Your task to perform on an android device: Is it going to rain this weekend? Image 0: 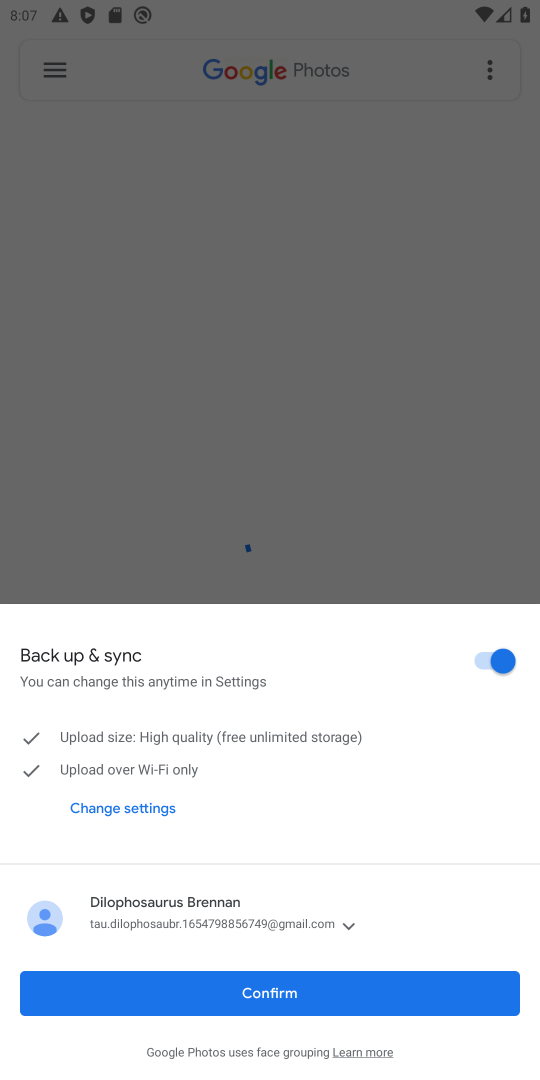
Step 0: press home button
Your task to perform on an android device: Is it going to rain this weekend? Image 1: 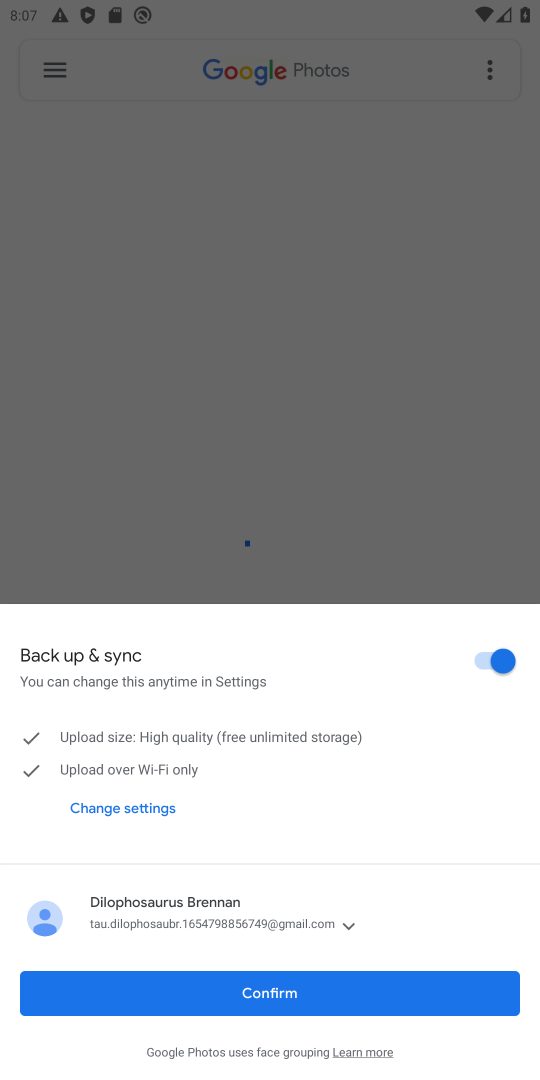
Step 1: click (387, 136)
Your task to perform on an android device: Is it going to rain this weekend? Image 2: 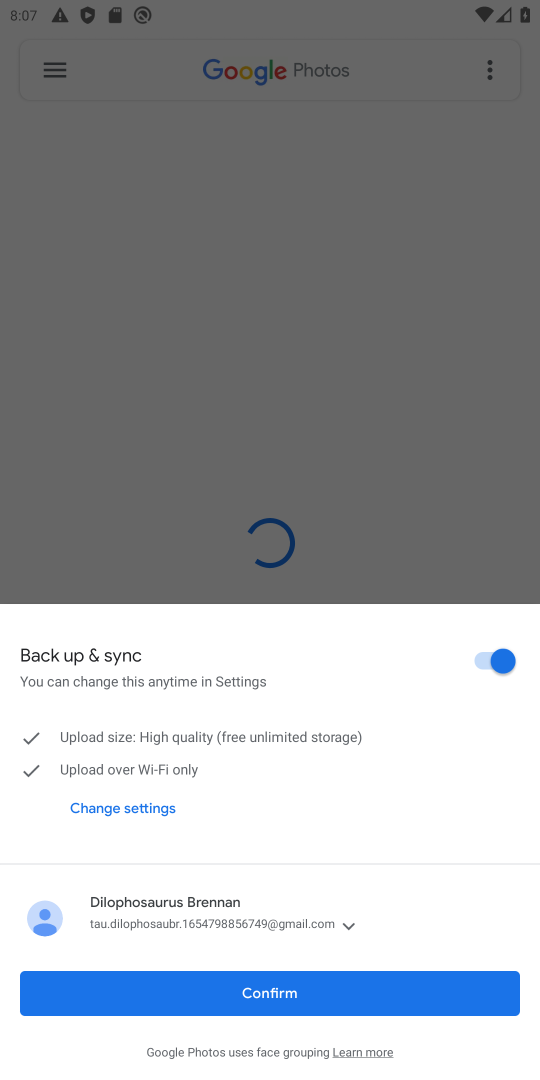
Step 2: drag from (238, 912) to (347, 141)
Your task to perform on an android device: Is it going to rain this weekend? Image 3: 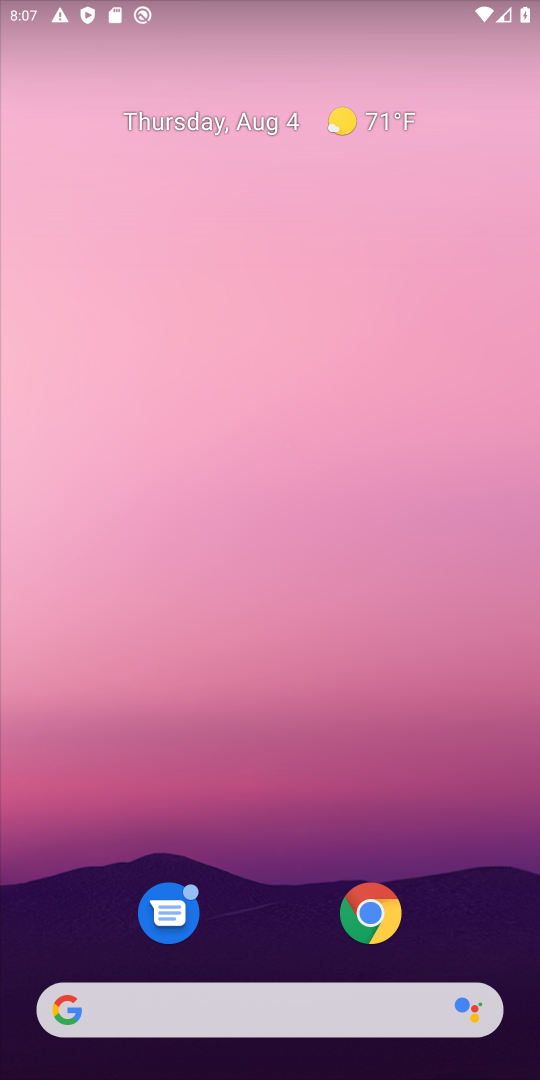
Step 3: drag from (341, 926) to (467, 141)
Your task to perform on an android device: Is it going to rain this weekend? Image 4: 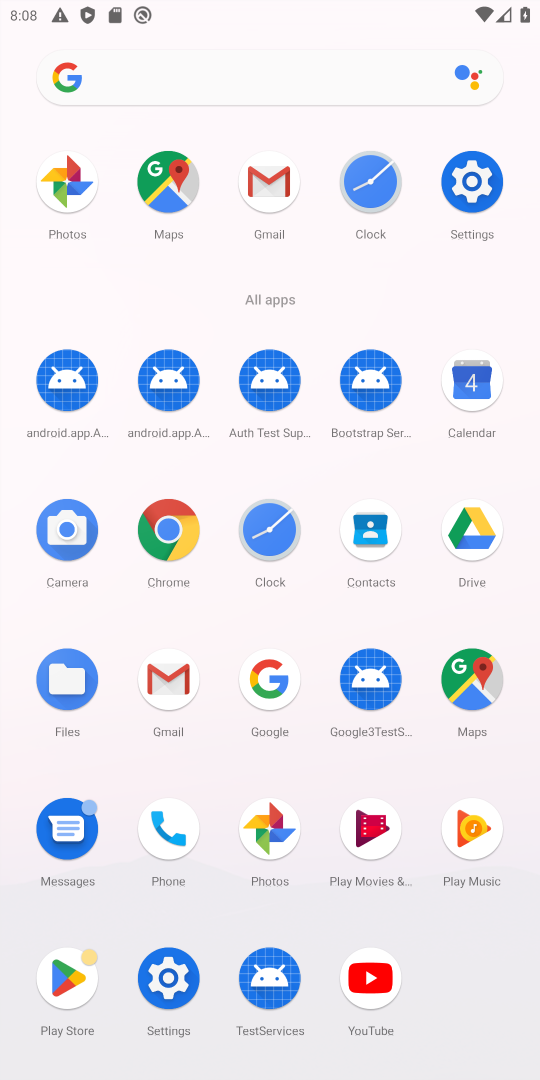
Step 4: click (168, 62)
Your task to perform on an android device: Is it going to rain this weekend? Image 5: 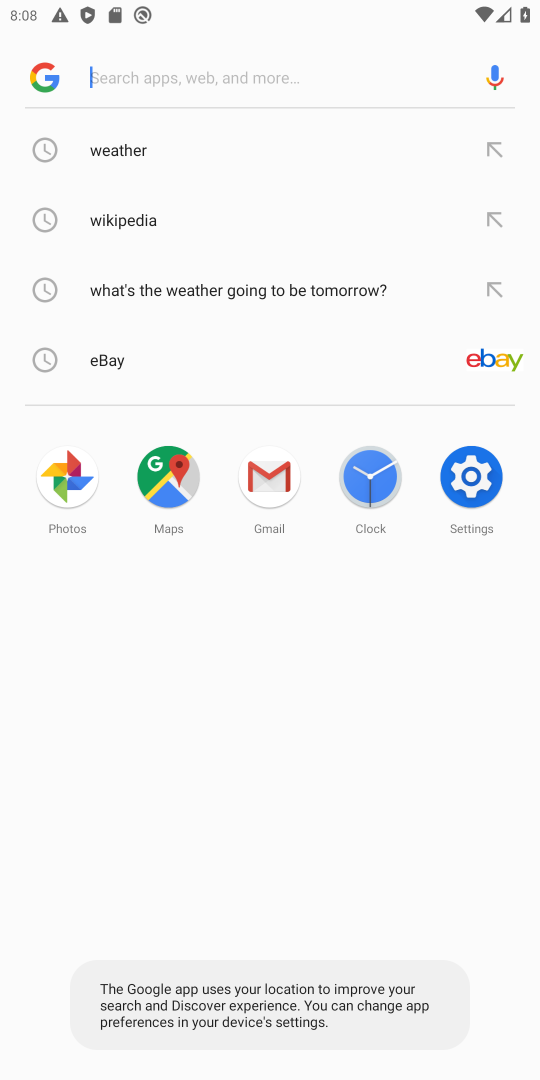
Step 5: type "Is it going to rain this weekend?"
Your task to perform on an android device: Is it going to rain this weekend? Image 6: 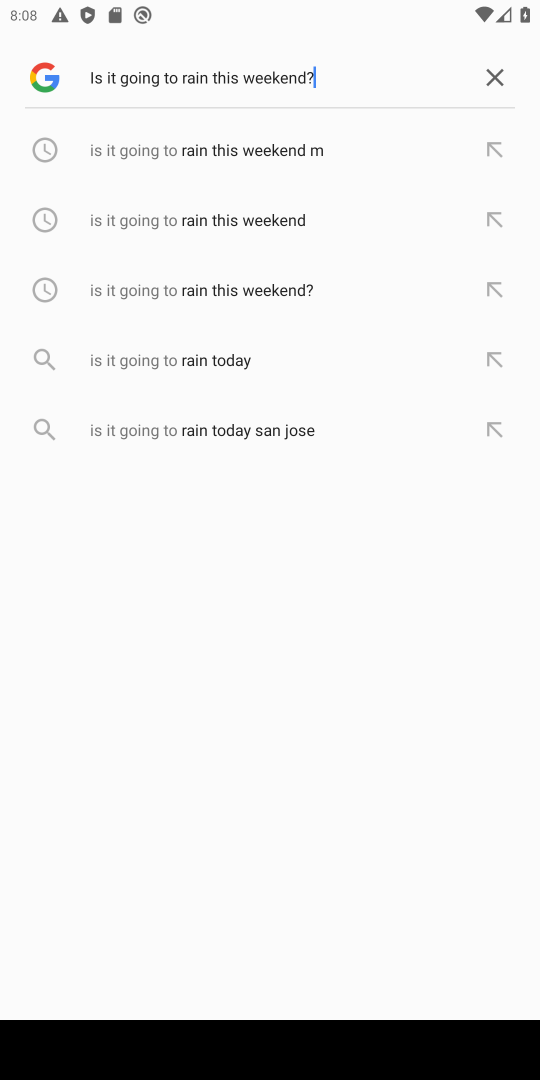
Step 6: type ""
Your task to perform on an android device: Is it going to rain this weekend? Image 7: 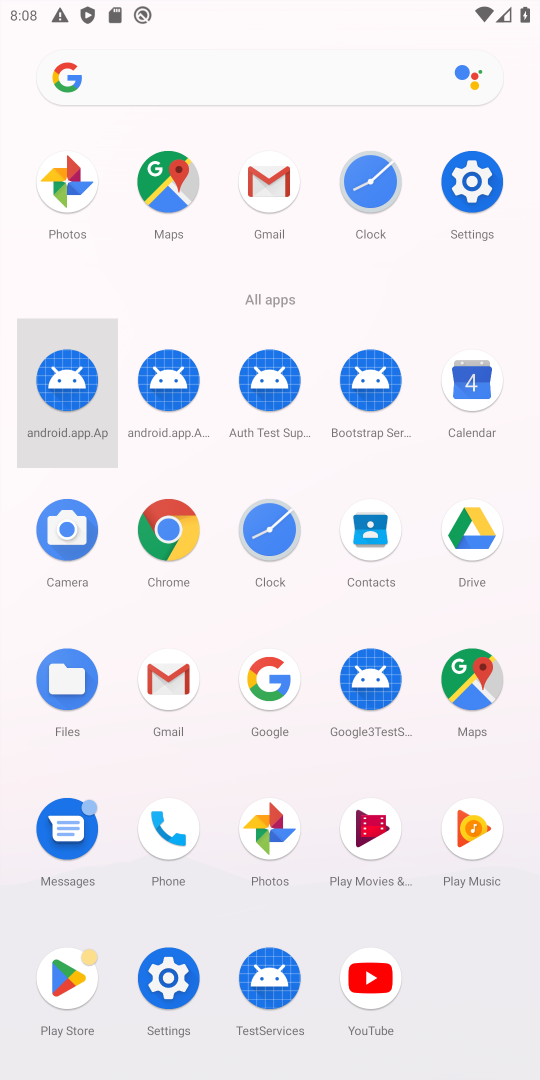
Step 7: drag from (278, 651) to (292, 280)
Your task to perform on an android device: Is it going to rain this weekend? Image 8: 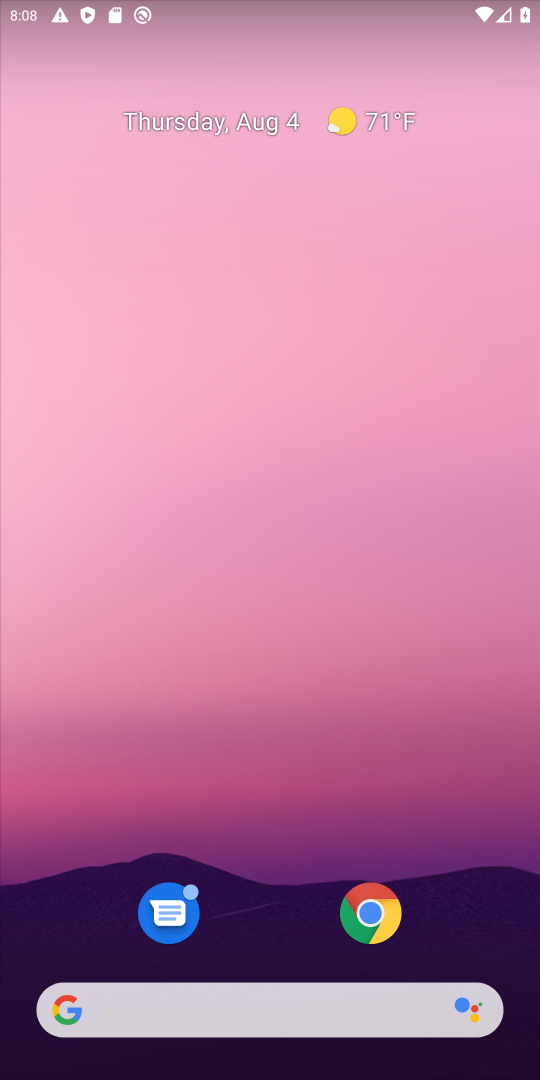
Step 8: click (143, 60)
Your task to perform on an android device: Is it going to rain this weekend? Image 9: 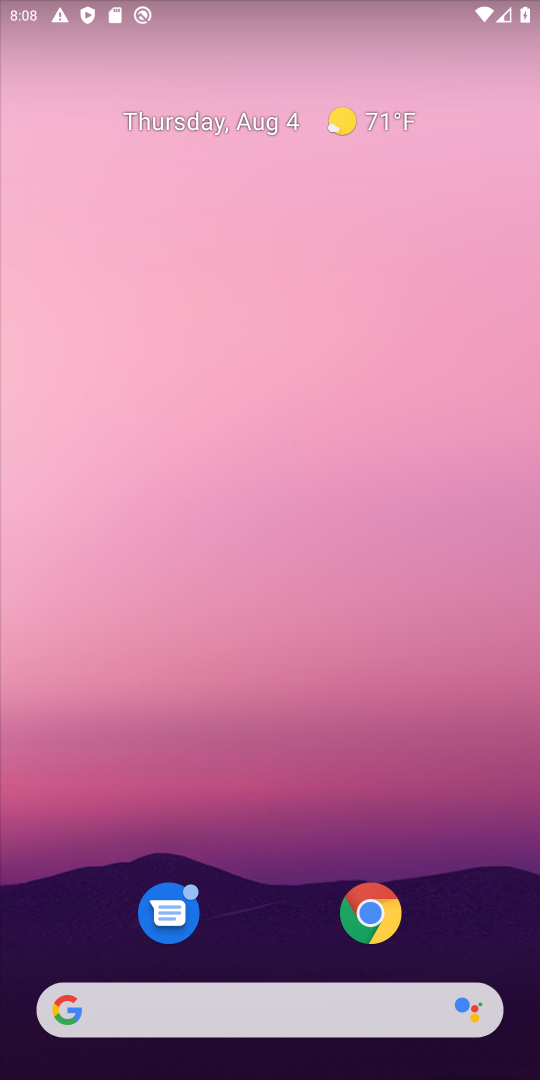
Step 9: click (363, 905)
Your task to perform on an android device: Is it going to rain this weekend? Image 10: 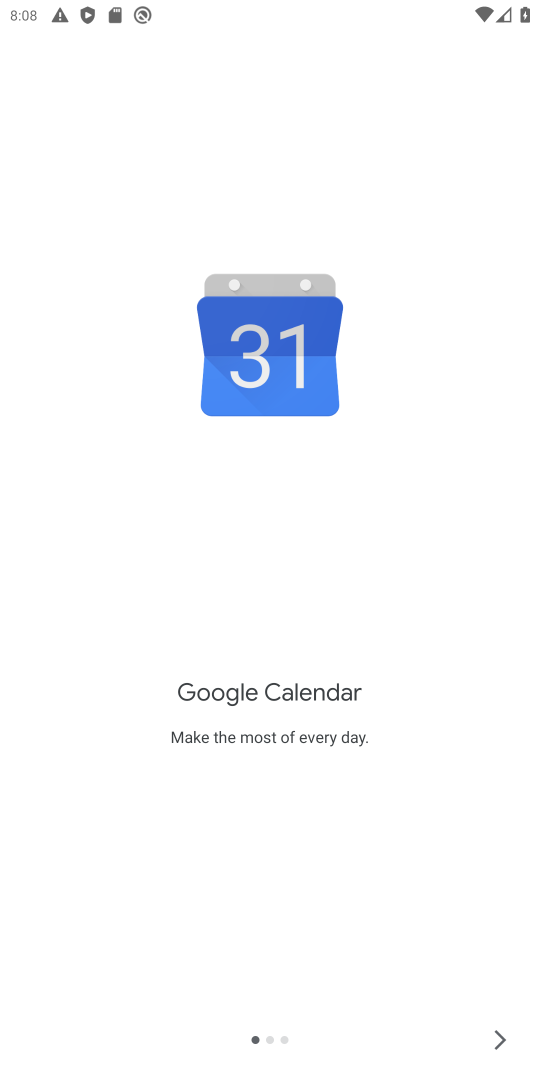
Step 10: press home button
Your task to perform on an android device: Is it going to rain this weekend? Image 11: 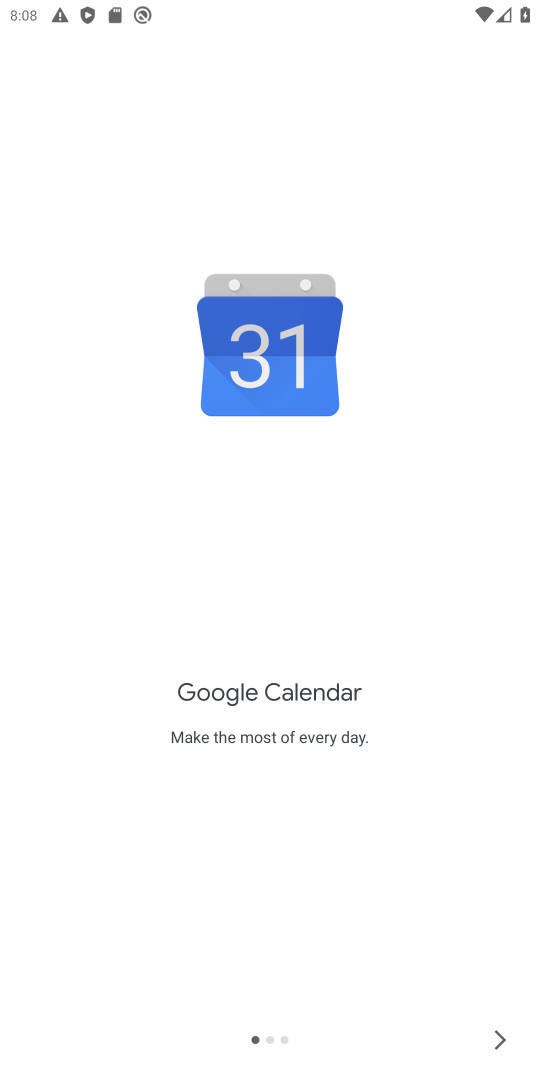
Step 11: press home button
Your task to perform on an android device: Is it going to rain this weekend? Image 12: 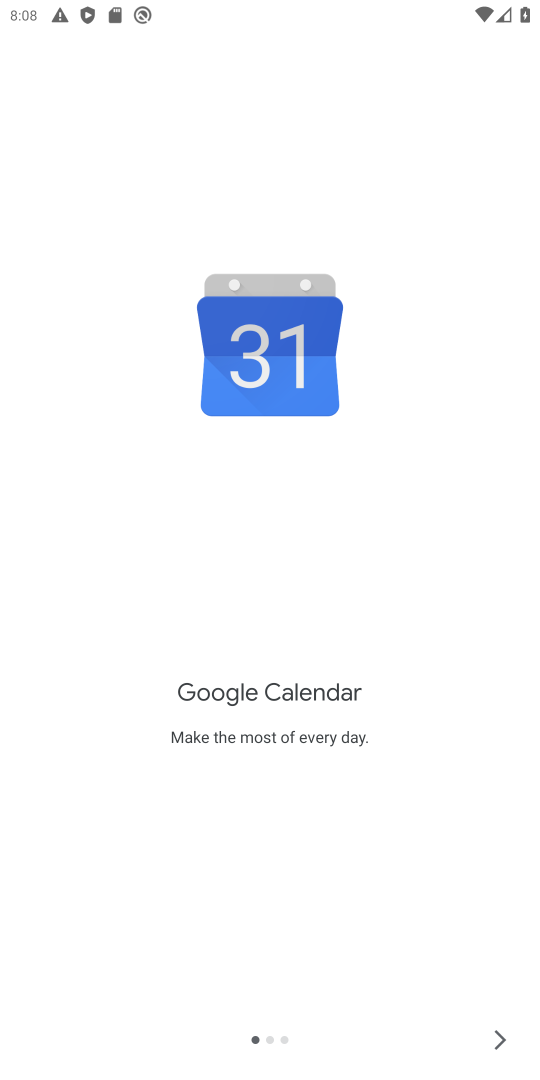
Step 12: click (334, 416)
Your task to perform on an android device: Is it going to rain this weekend? Image 13: 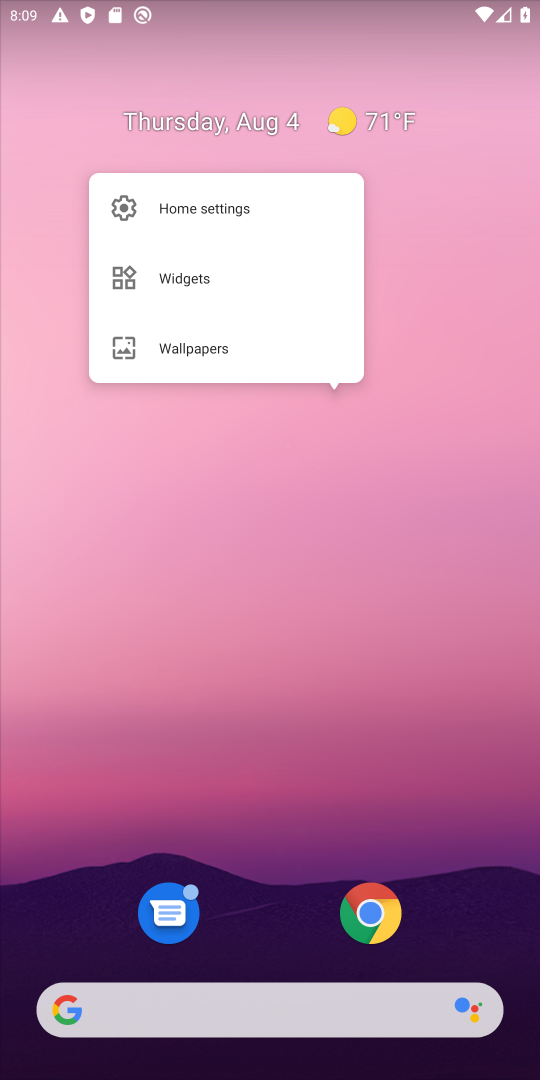
Step 13: click (273, 906)
Your task to perform on an android device: Is it going to rain this weekend? Image 14: 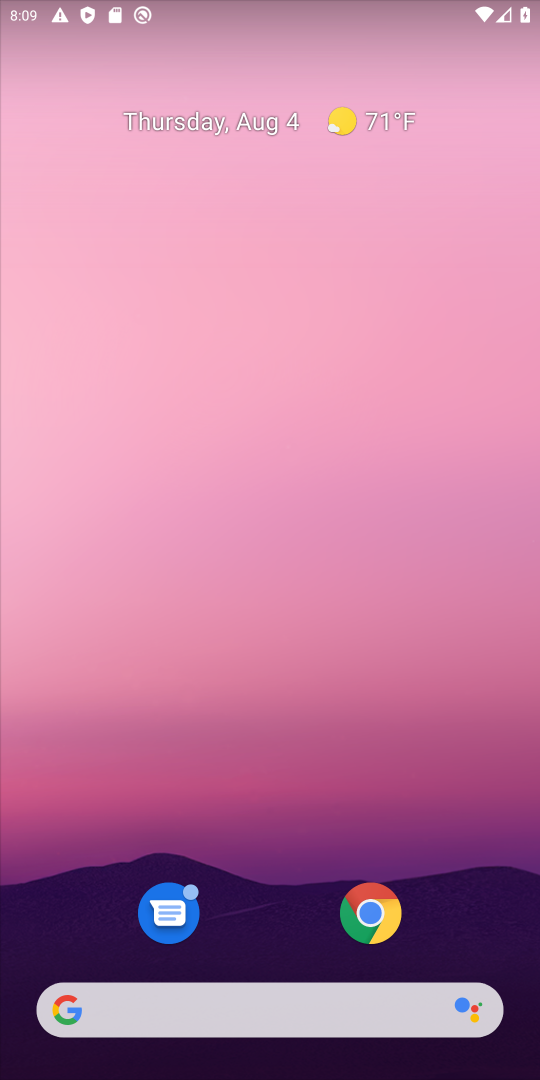
Step 14: drag from (248, 812) to (361, 177)
Your task to perform on an android device: Is it going to rain this weekend? Image 15: 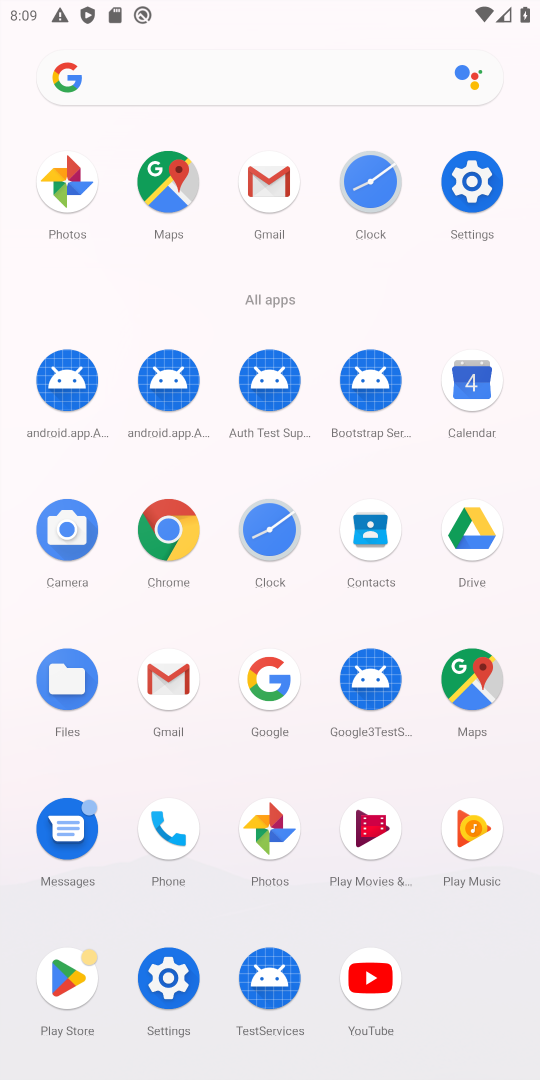
Step 15: click (160, 521)
Your task to perform on an android device: Is it going to rain this weekend? Image 16: 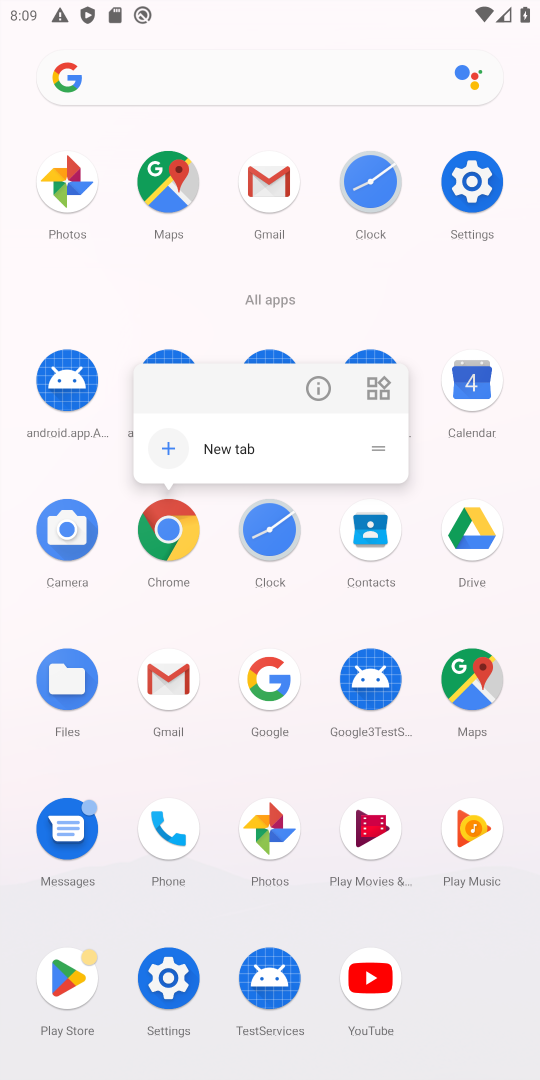
Step 16: click (328, 384)
Your task to perform on an android device: Is it going to rain this weekend? Image 17: 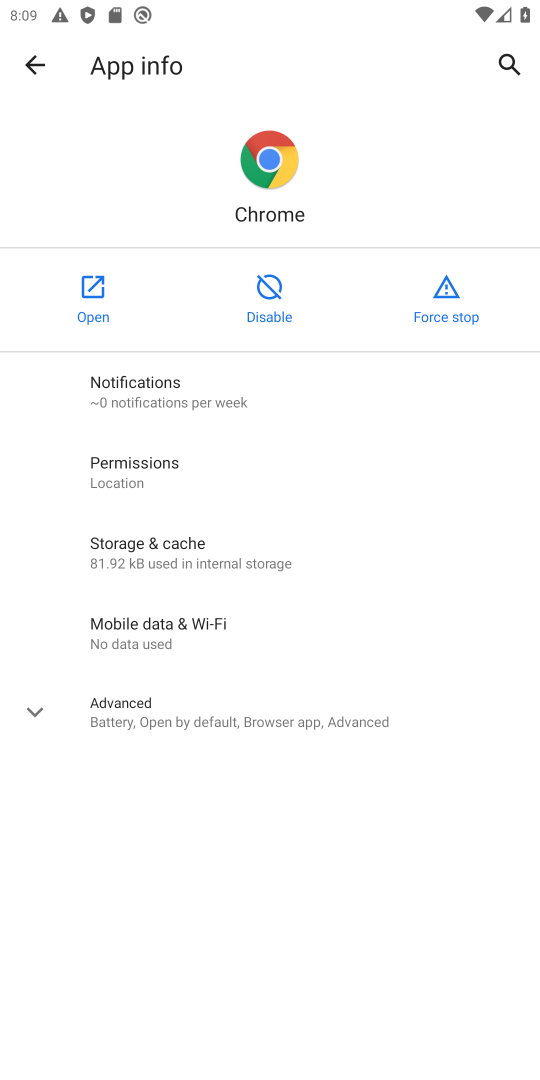
Step 17: click (99, 287)
Your task to perform on an android device: Is it going to rain this weekend? Image 18: 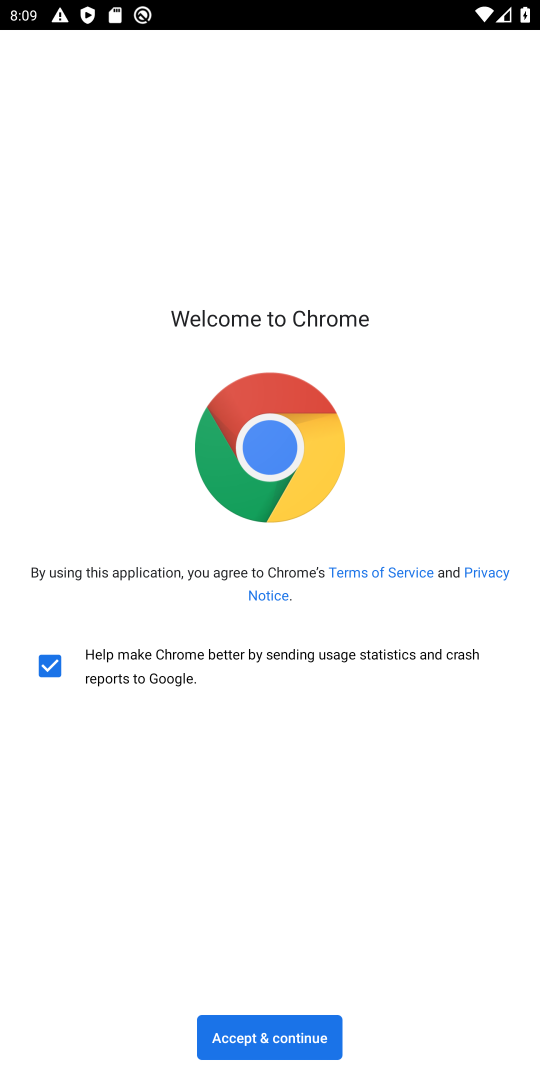
Step 18: click (268, 1049)
Your task to perform on an android device: Is it going to rain this weekend? Image 19: 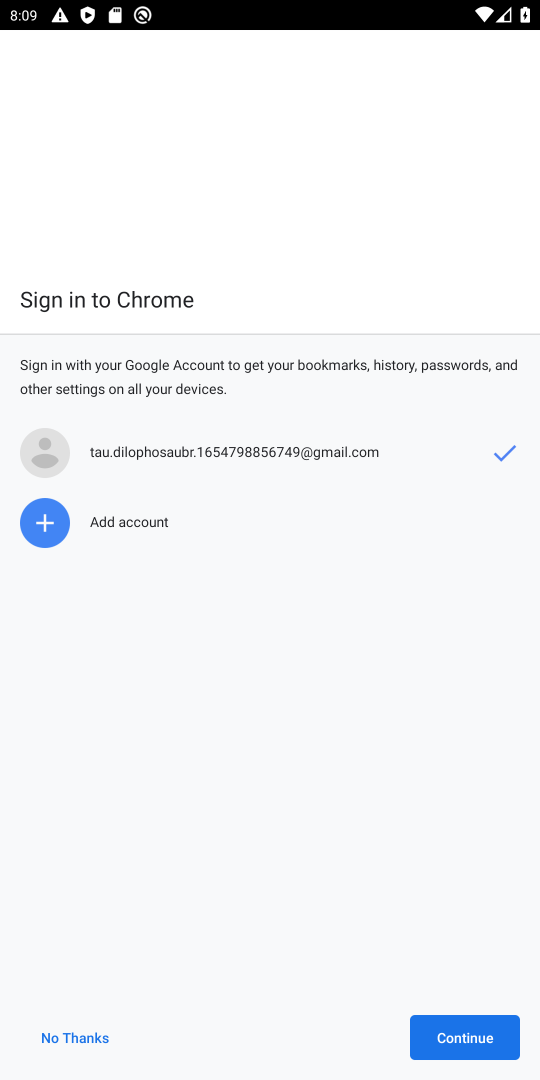
Step 19: click (442, 1039)
Your task to perform on an android device: Is it going to rain this weekend? Image 20: 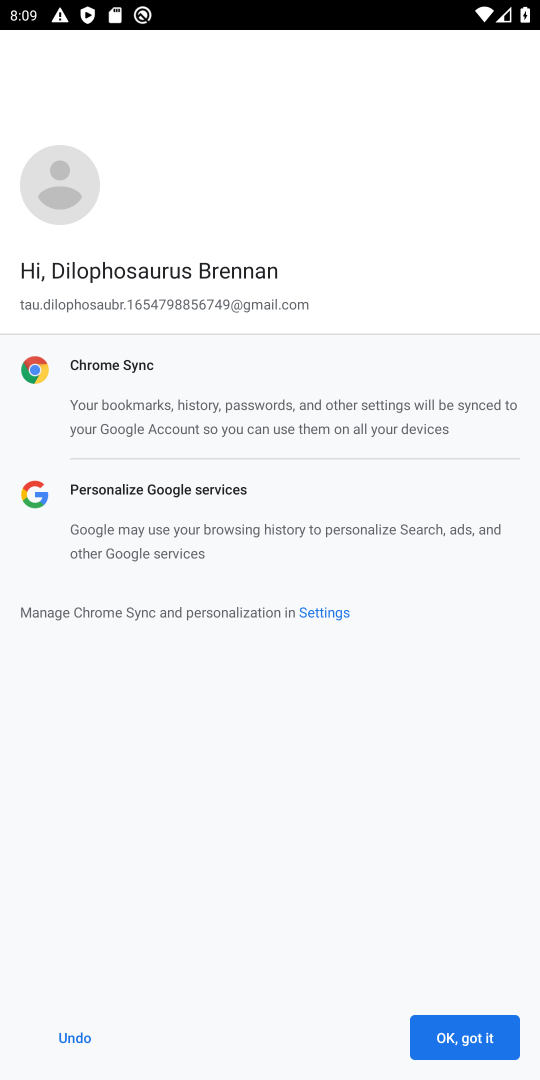
Step 20: click (456, 1022)
Your task to perform on an android device: Is it going to rain this weekend? Image 21: 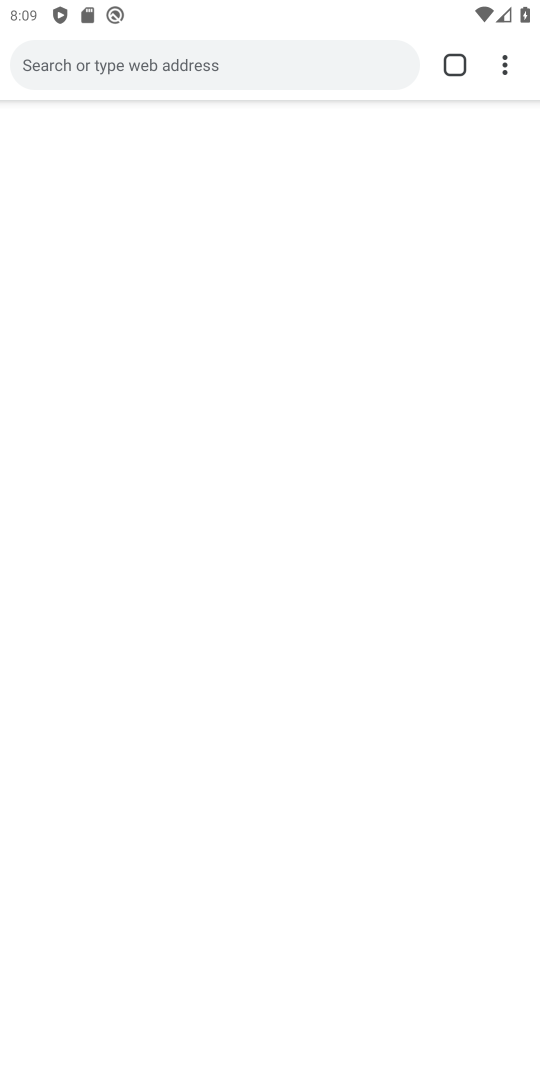
Step 21: click (241, 67)
Your task to perform on an android device: Is it going to rain this weekend? Image 22: 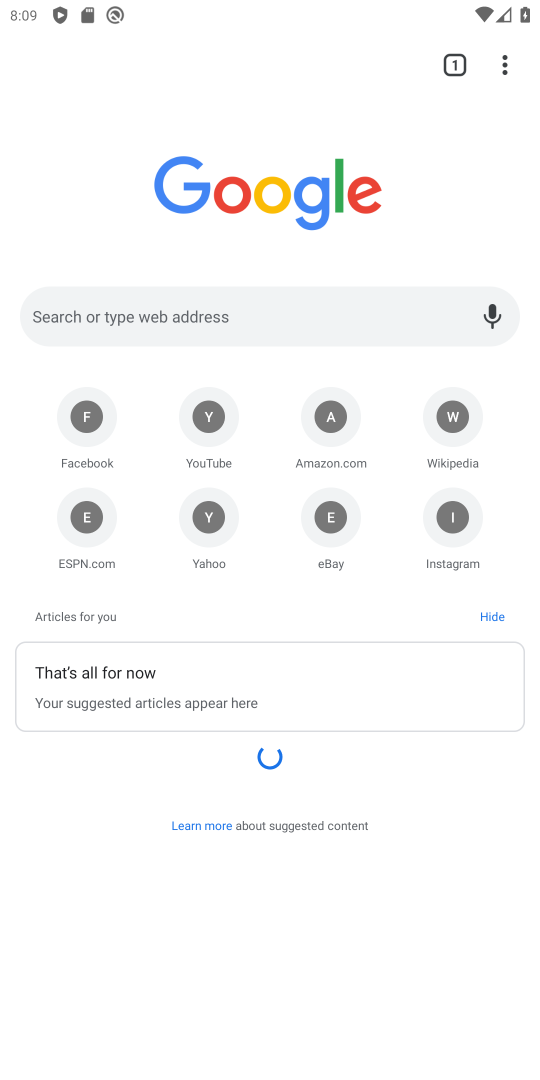
Step 22: click (174, 309)
Your task to perform on an android device: Is it going to rain this weekend? Image 23: 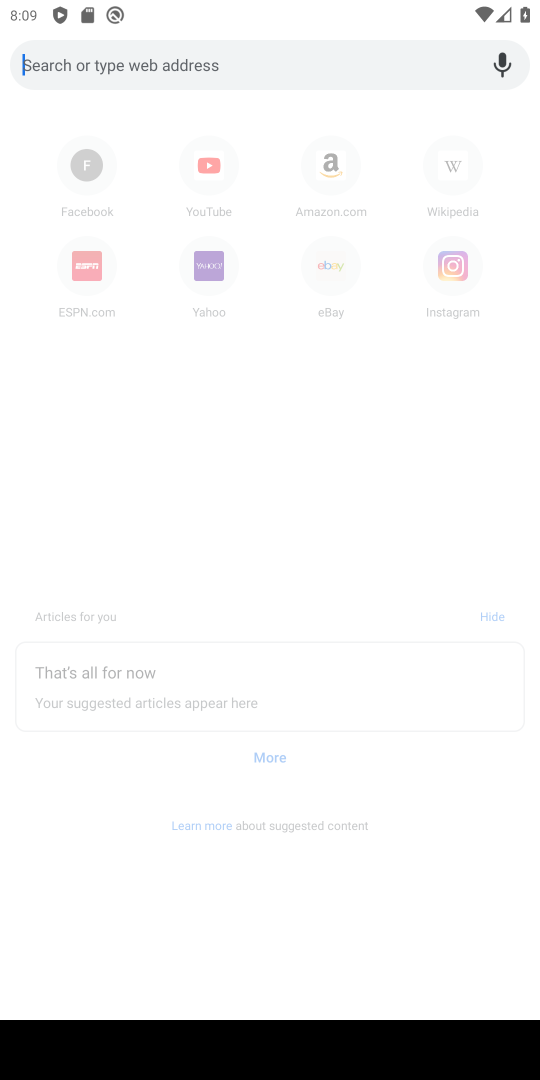
Step 23: type "Is it going to rain this weekend?"
Your task to perform on an android device: Is it going to rain this weekend? Image 24: 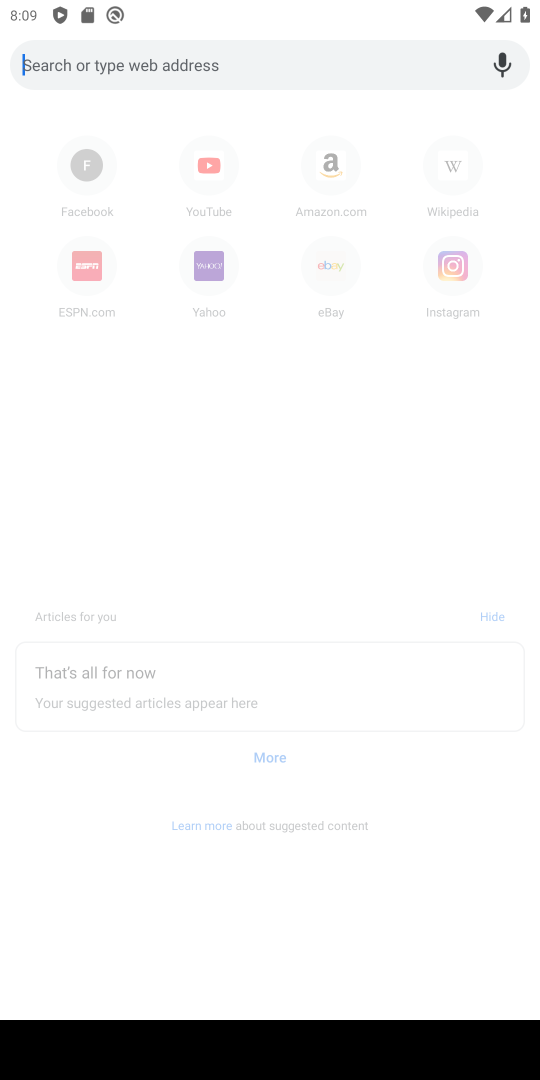
Step 24: click (100, 65)
Your task to perform on an android device: Is it going to rain this weekend? Image 25: 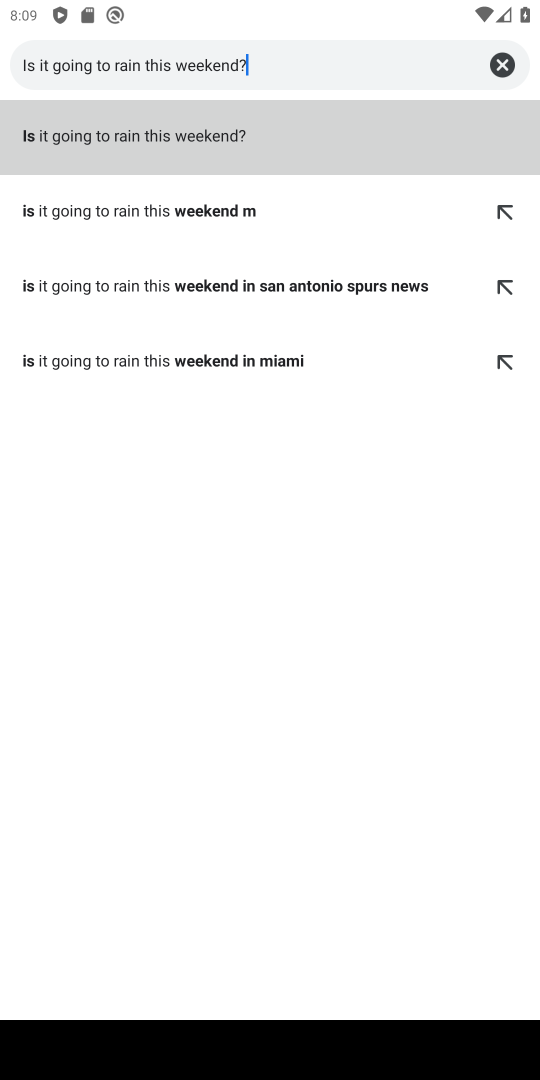
Step 25: type ""
Your task to perform on an android device: Is it going to rain this weekend? Image 26: 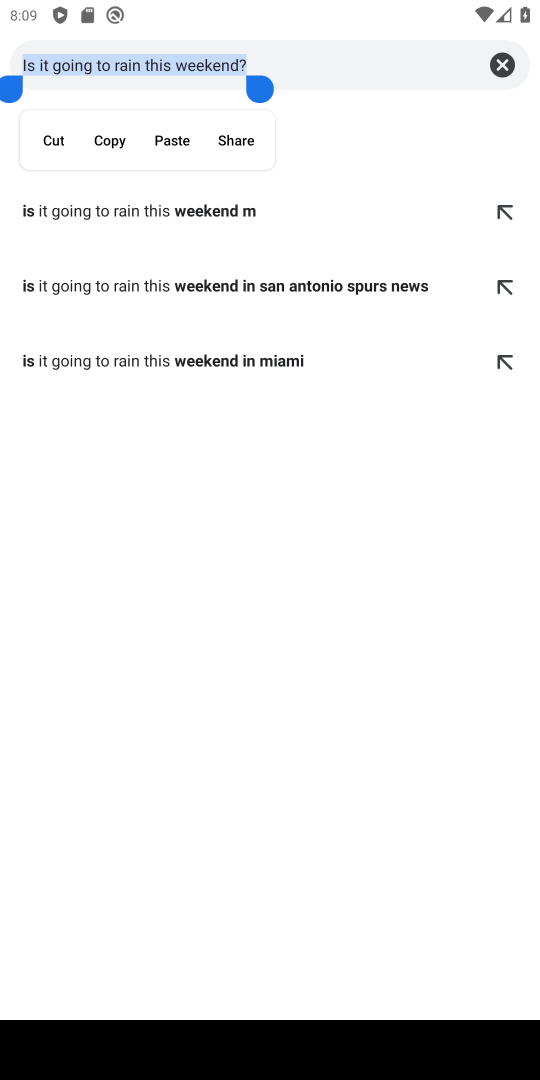
Step 26: click (362, 127)
Your task to perform on an android device: Is it going to rain this weekend? Image 27: 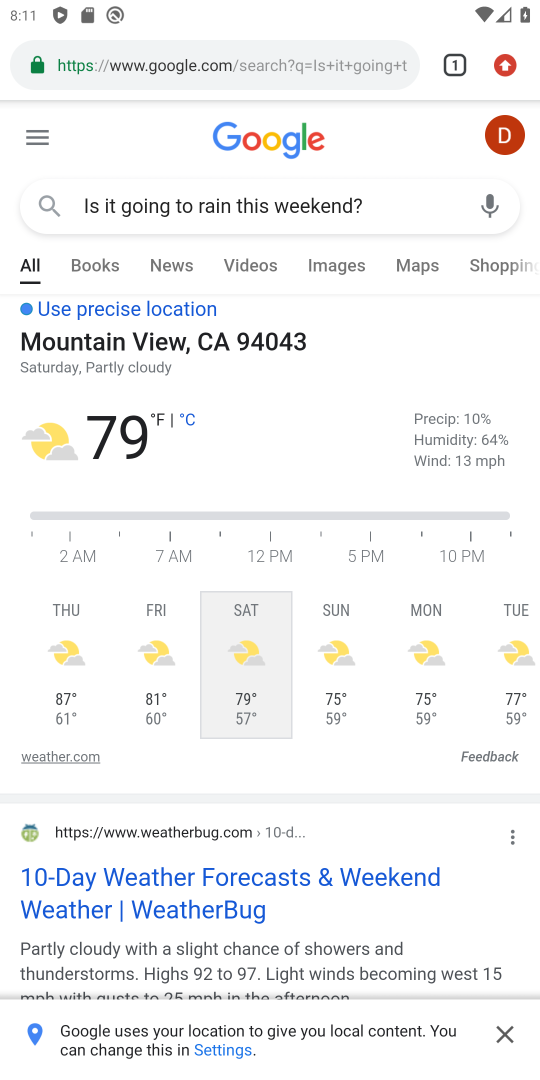
Step 27: task complete